Your task to perform on an android device: open chrome and create a bookmark for the current page Image 0: 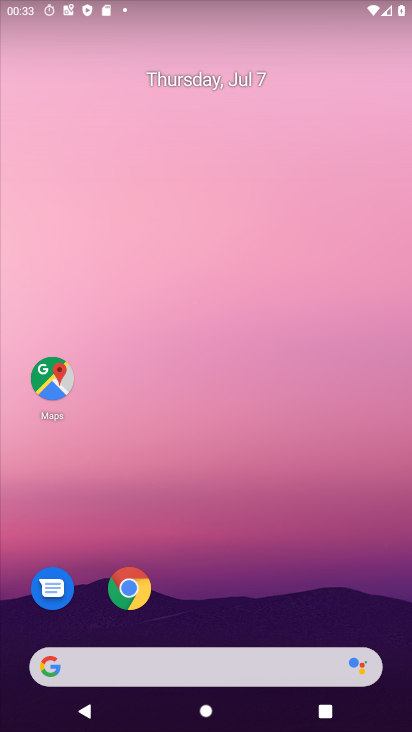
Step 0: click (136, 584)
Your task to perform on an android device: open chrome and create a bookmark for the current page Image 1: 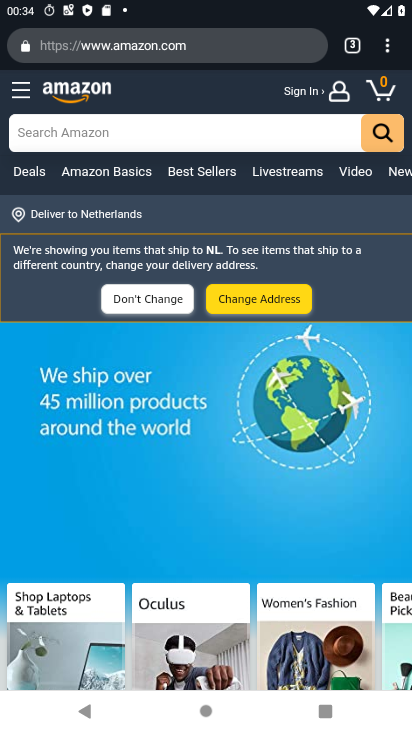
Step 1: click (389, 51)
Your task to perform on an android device: open chrome and create a bookmark for the current page Image 2: 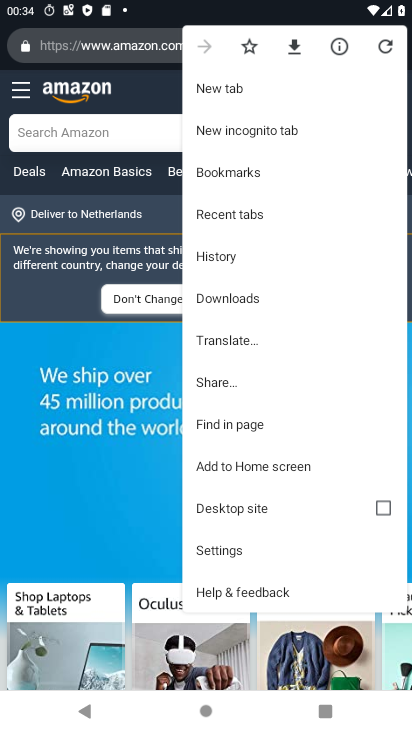
Step 2: click (247, 44)
Your task to perform on an android device: open chrome and create a bookmark for the current page Image 3: 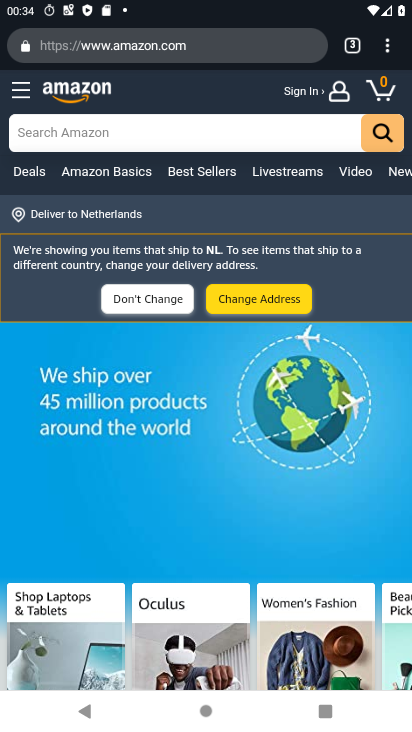
Step 3: task complete